Your task to perform on an android device: Open Chrome and go to settings Image 0: 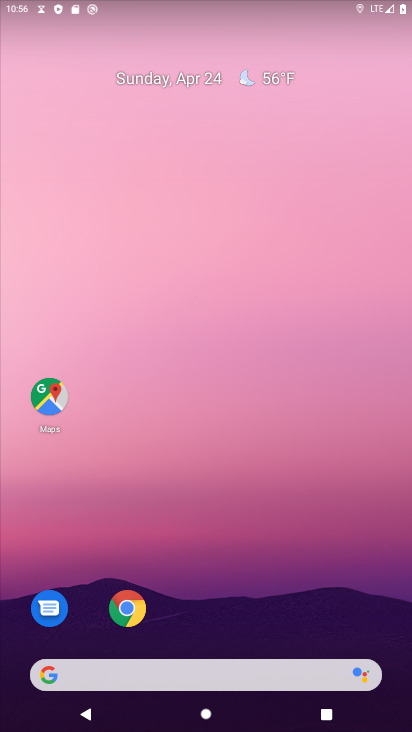
Step 0: drag from (217, 641) to (177, 53)
Your task to perform on an android device: Open Chrome and go to settings Image 1: 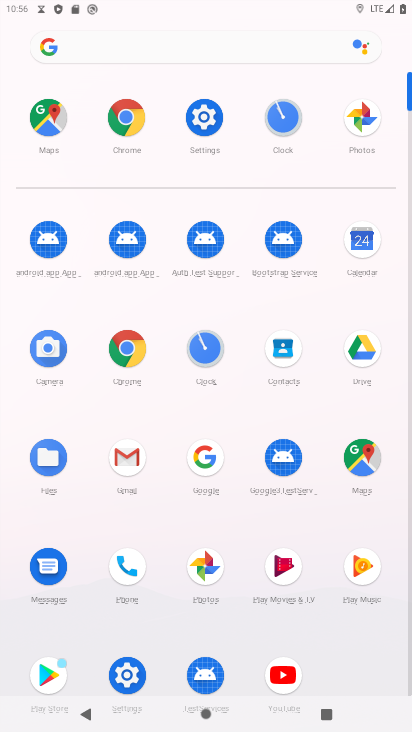
Step 1: click (127, 355)
Your task to perform on an android device: Open Chrome and go to settings Image 2: 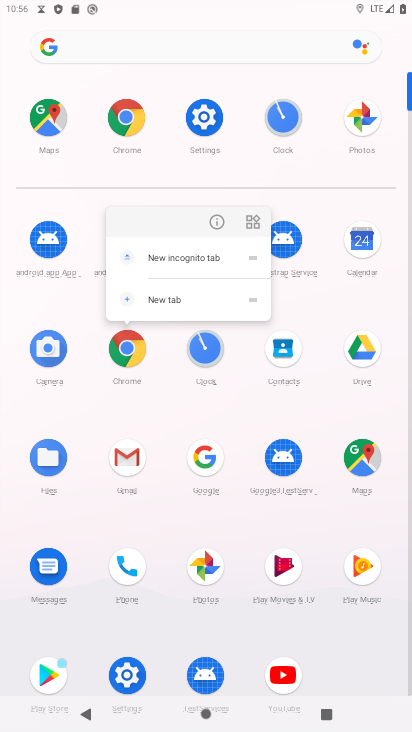
Step 2: click (129, 342)
Your task to perform on an android device: Open Chrome and go to settings Image 3: 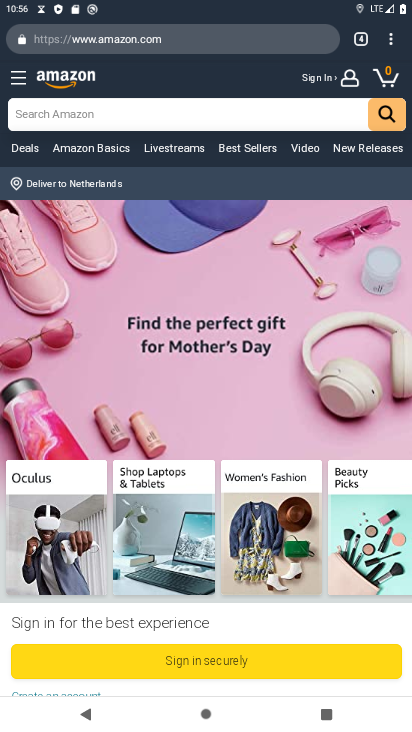
Step 3: task complete